Your task to perform on an android device: turn on the 12-hour format for clock Image 0: 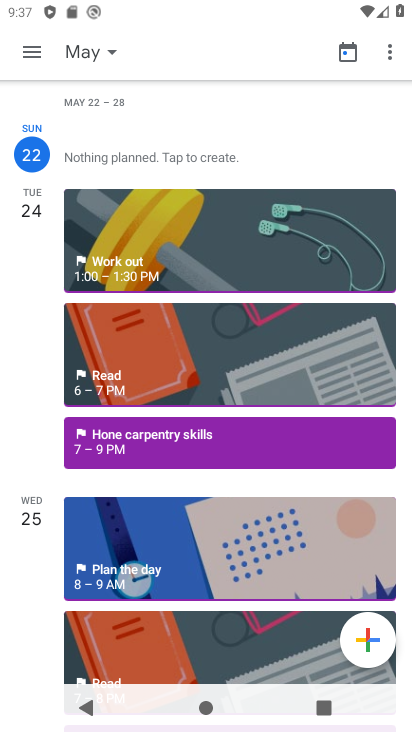
Step 0: press home button
Your task to perform on an android device: turn on the 12-hour format for clock Image 1: 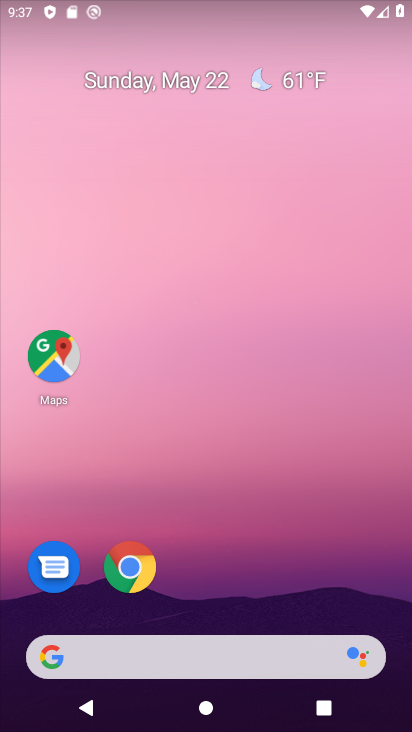
Step 1: drag from (212, 599) to (230, 0)
Your task to perform on an android device: turn on the 12-hour format for clock Image 2: 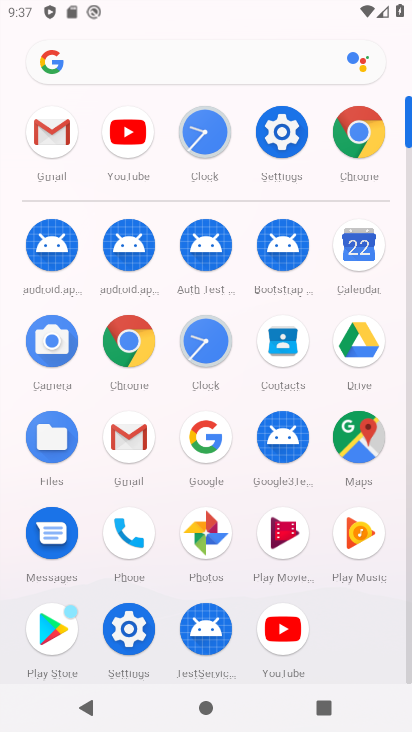
Step 2: click (212, 353)
Your task to perform on an android device: turn on the 12-hour format for clock Image 3: 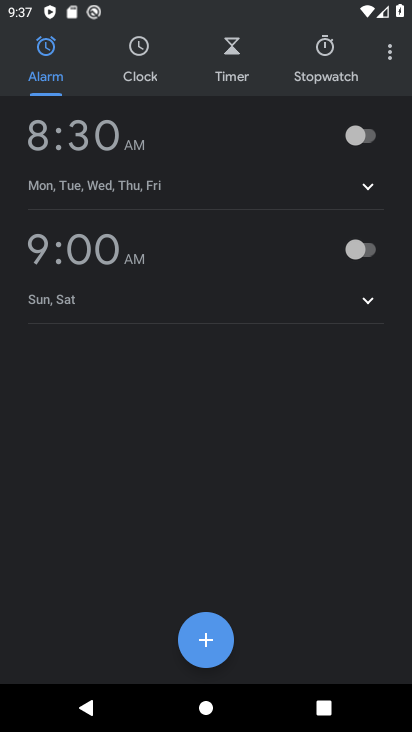
Step 3: drag from (389, 63) to (343, 166)
Your task to perform on an android device: turn on the 12-hour format for clock Image 4: 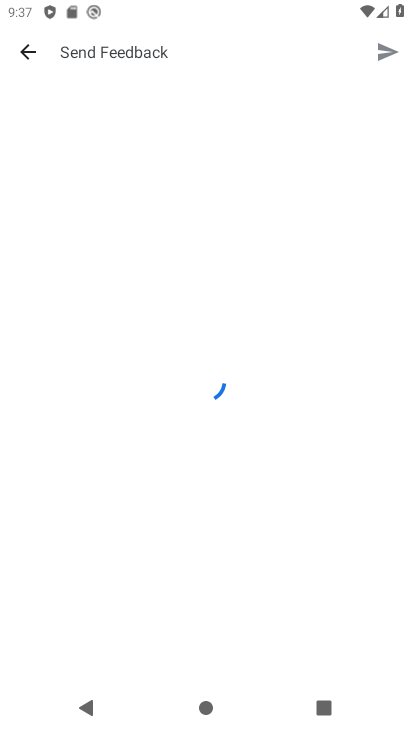
Step 4: click (385, 50)
Your task to perform on an android device: turn on the 12-hour format for clock Image 5: 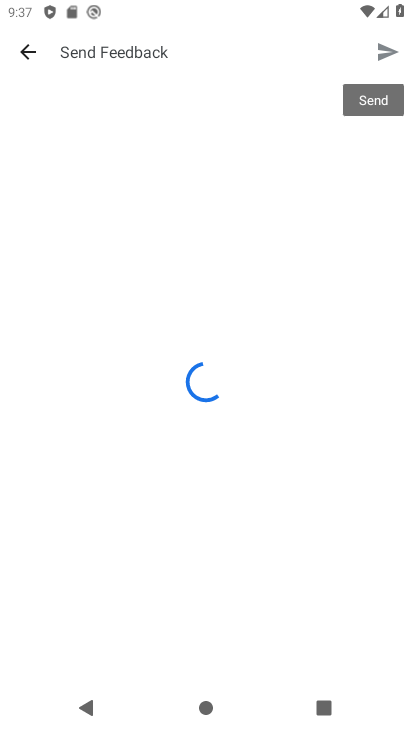
Step 5: click (32, 48)
Your task to perform on an android device: turn on the 12-hour format for clock Image 6: 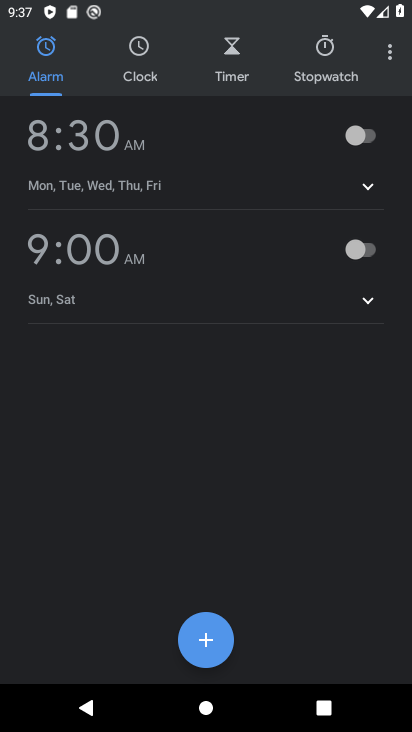
Step 6: drag from (389, 56) to (318, 108)
Your task to perform on an android device: turn on the 12-hour format for clock Image 7: 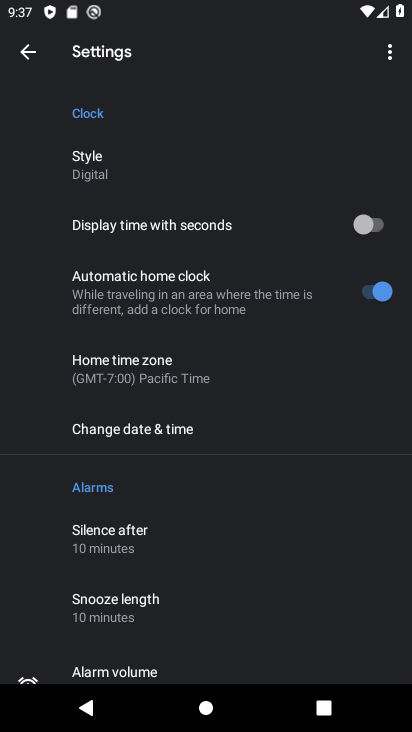
Step 7: click (142, 441)
Your task to perform on an android device: turn on the 12-hour format for clock Image 8: 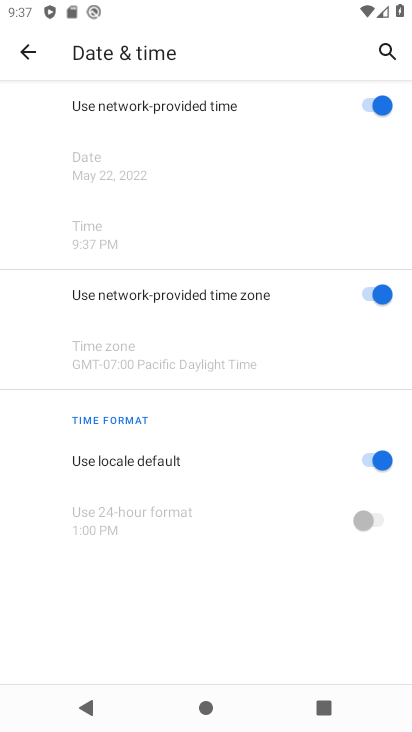
Step 8: task complete